Your task to perform on an android device: add a contact Image 0: 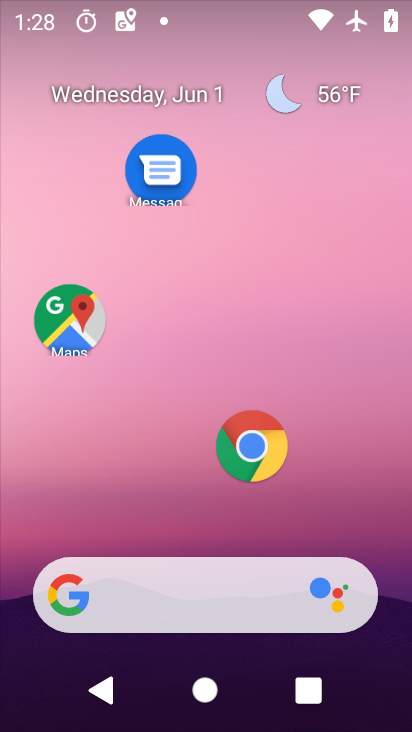
Step 0: drag from (124, 521) to (236, 134)
Your task to perform on an android device: add a contact Image 1: 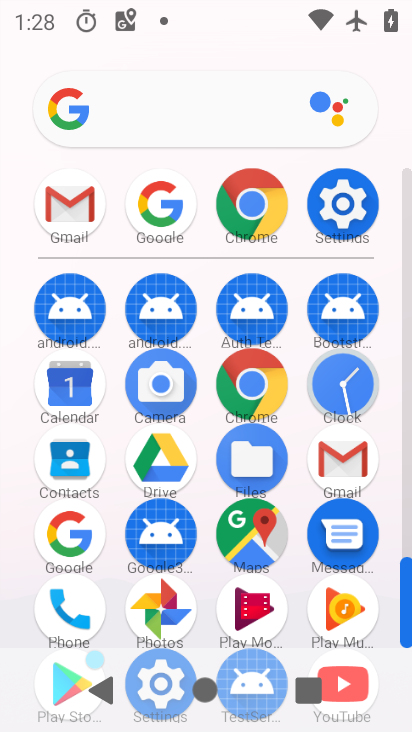
Step 1: drag from (198, 284) to (205, 148)
Your task to perform on an android device: add a contact Image 2: 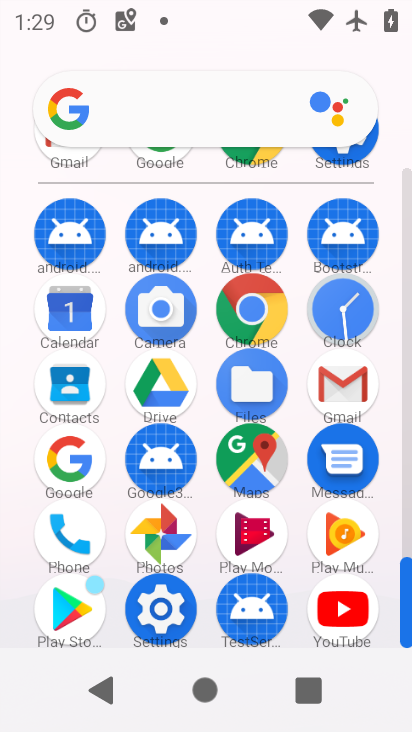
Step 2: click (64, 396)
Your task to perform on an android device: add a contact Image 3: 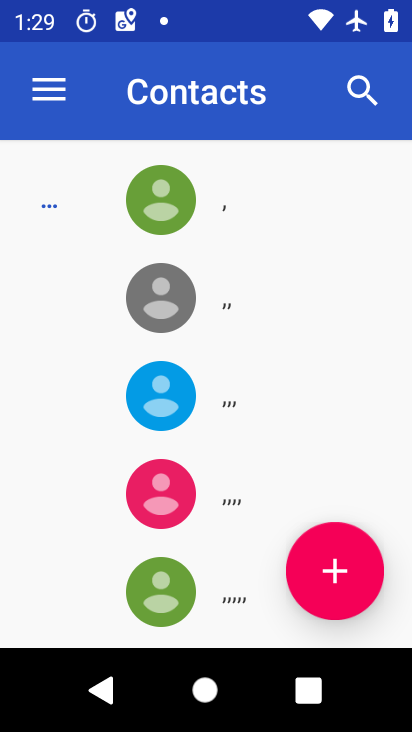
Step 3: click (322, 562)
Your task to perform on an android device: add a contact Image 4: 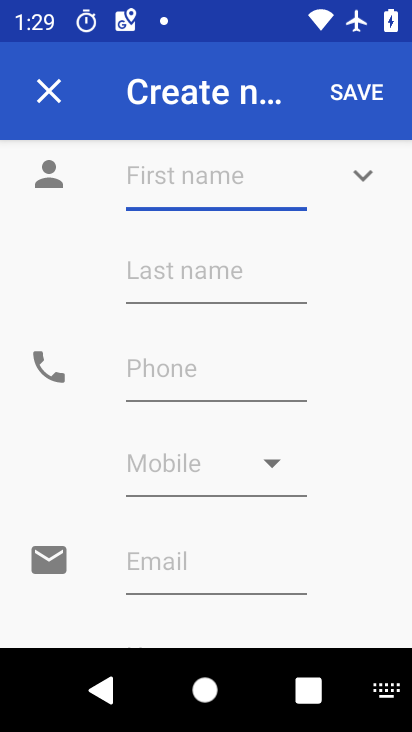
Step 4: type "dsfsdgsd"
Your task to perform on an android device: add a contact Image 5: 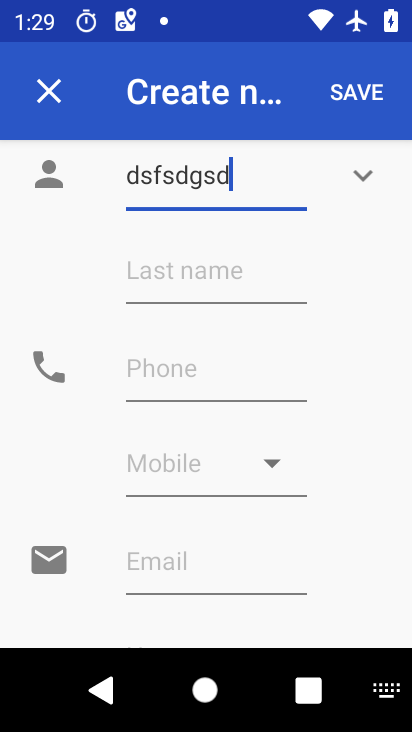
Step 5: type ""
Your task to perform on an android device: add a contact Image 6: 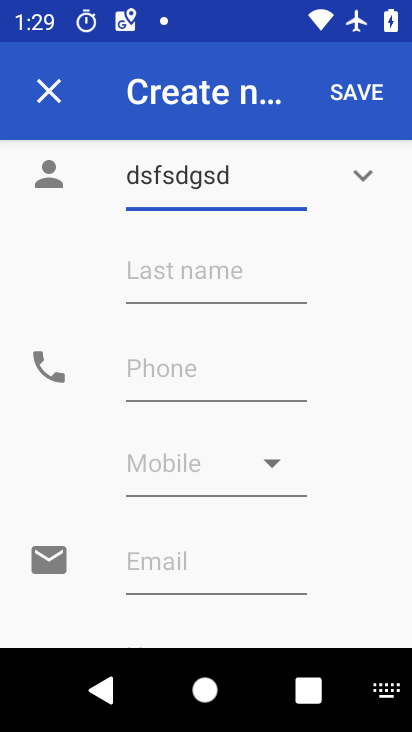
Step 6: click (377, 95)
Your task to perform on an android device: add a contact Image 7: 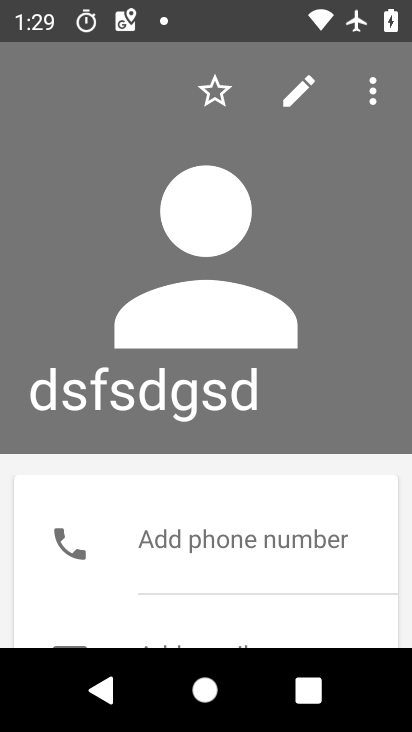
Step 7: task complete